Your task to perform on an android device: check storage Image 0: 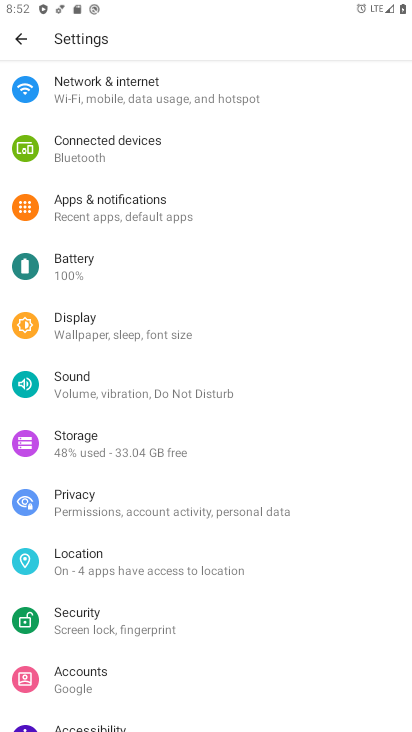
Step 0: click (44, 436)
Your task to perform on an android device: check storage Image 1: 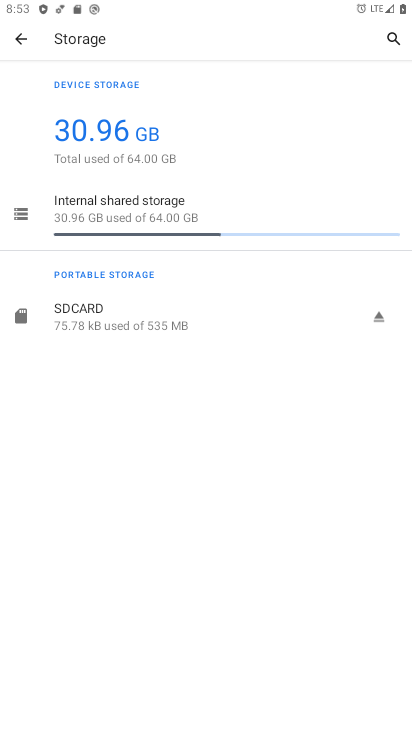
Step 1: task complete